Your task to perform on an android device: Open Android settings Image 0: 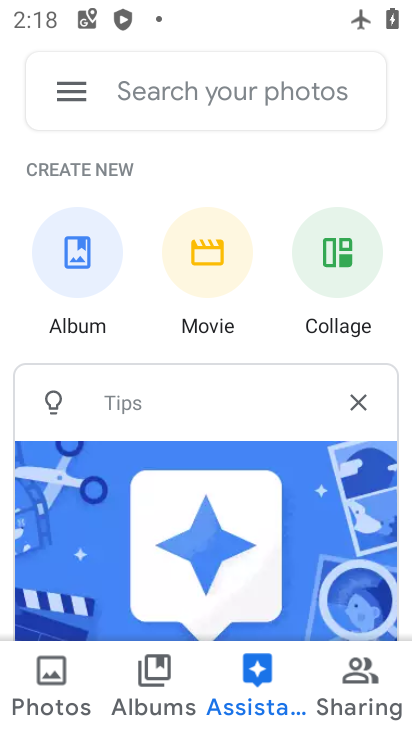
Step 0: press home button
Your task to perform on an android device: Open Android settings Image 1: 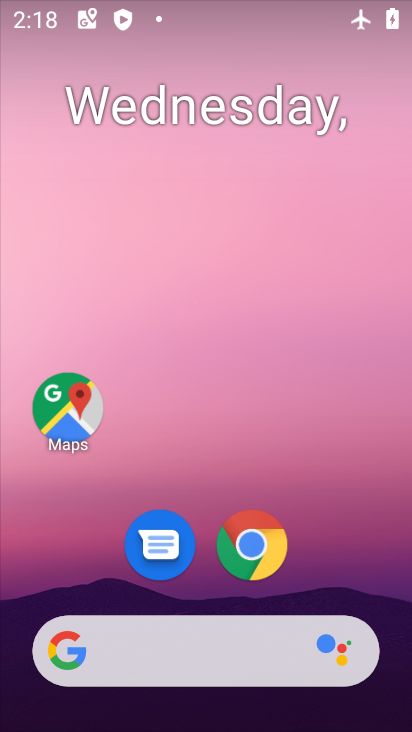
Step 1: drag from (366, 518) to (260, 101)
Your task to perform on an android device: Open Android settings Image 2: 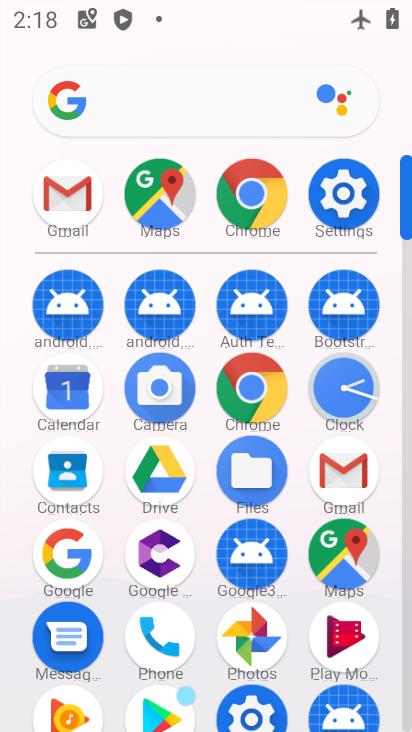
Step 2: click (350, 201)
Your task to perform on an android device: Open Android settings Image 3: 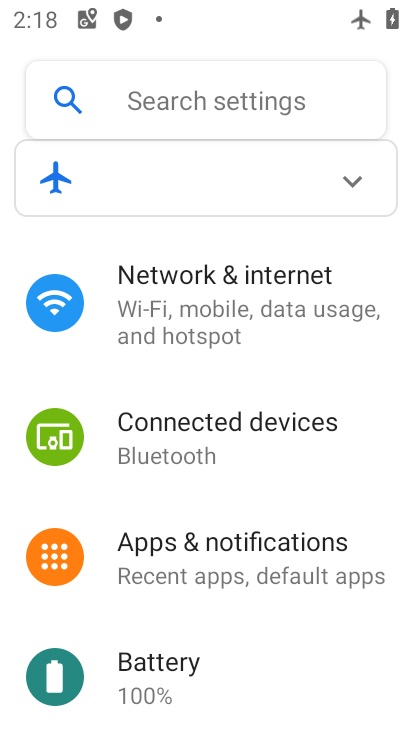
Step 3: task complete